Your task to perform on an android device: Search for Italian restaurants on Maps Image 0: 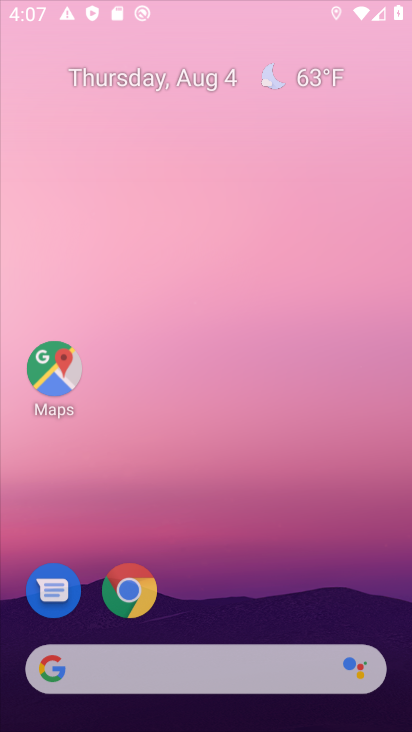
Step 0: click (312, 123)
Your task to perform on an android device: Search for Italian restaurants on Maps Image 1: 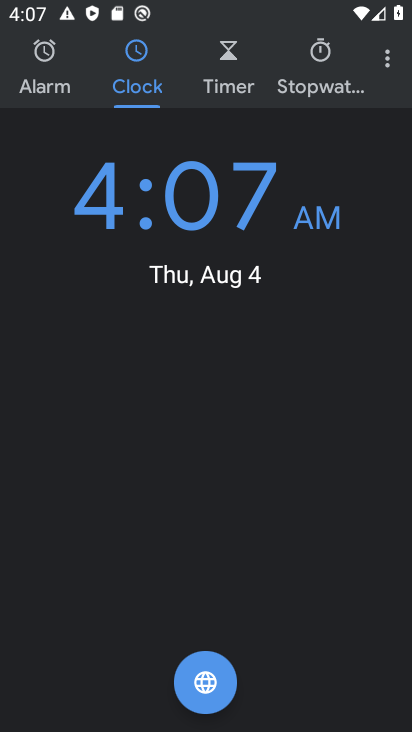
Step 1: press home button
Your task to perform on an android device: Search for Italian restaurants on Maps Image 2: 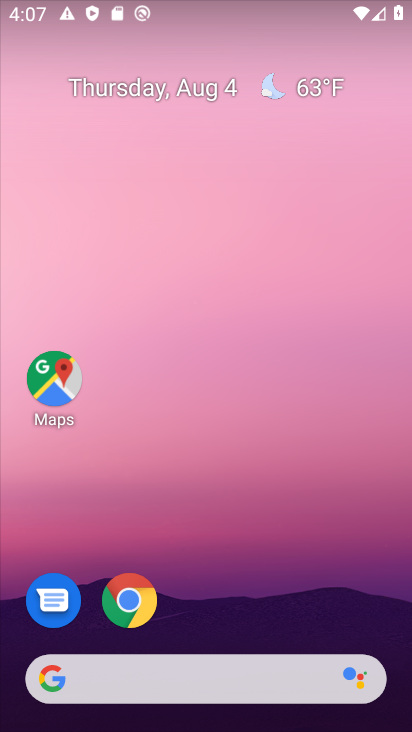
Step 2: drag from (299, 629) to (263, 152)
Your task to perform on an android device: Search for Italian restaurants on Maps Image 3: 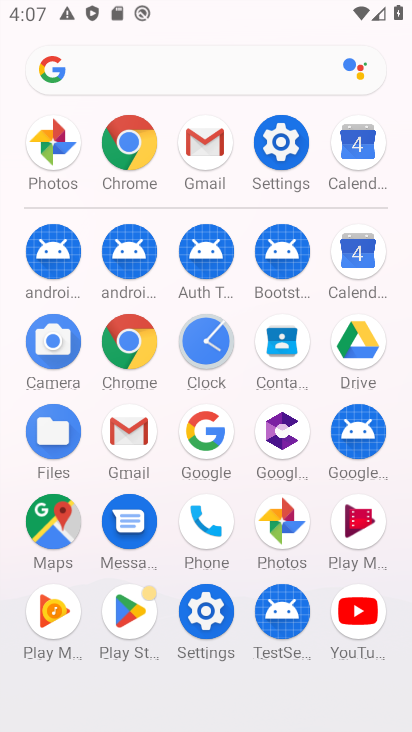
Step 3: click (58, 521)
Your task to perform on an android device: Search for Italian restaurants on Maps Image 4: 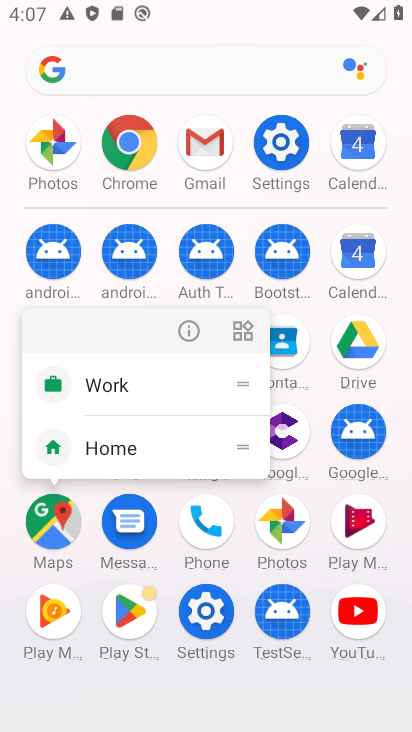
Step 4: click (58, 521)
Your task to perform on an android device: Search for Italian restaurants on Maps Image 5: 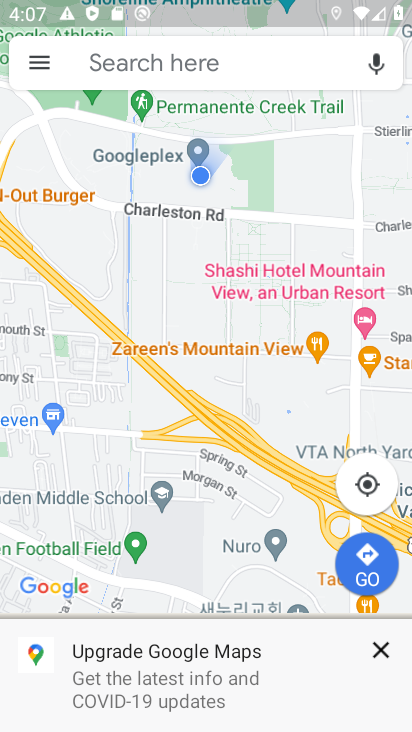
Step 5: click (142, 70)
Your task to perform on an android device: Search for Italian restaurants on Maps Image 6: 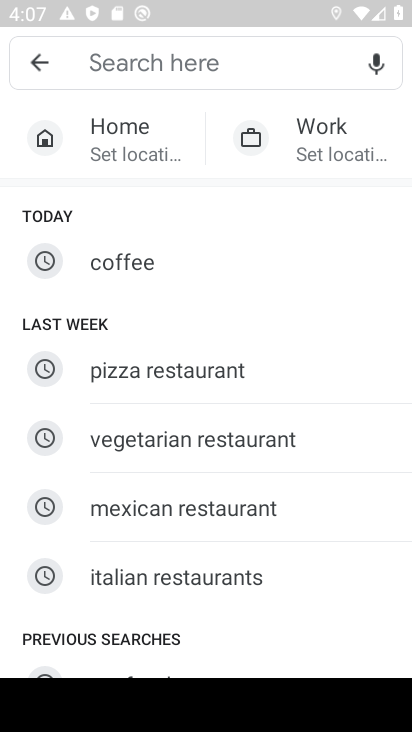
Step 6: click (253, 584)
Your task to perform on an android device: Search for Italian restaurants on Maps Image 7: 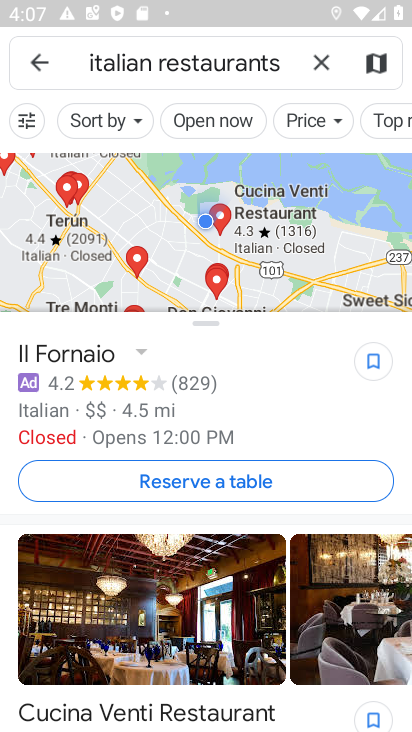
Step 7: task complete